Your task to perform on an android device: remove spam from my inbox in the gmail app Image 0: 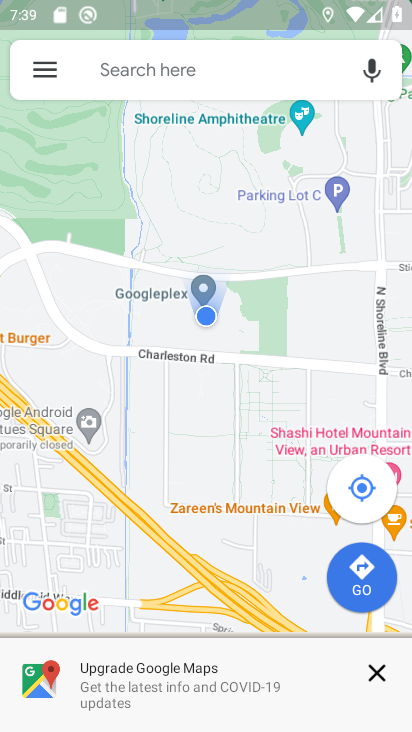
Step 0: press home button
Your task to perform on an android device: remove spam from my inbox in the gmail app Image 1: 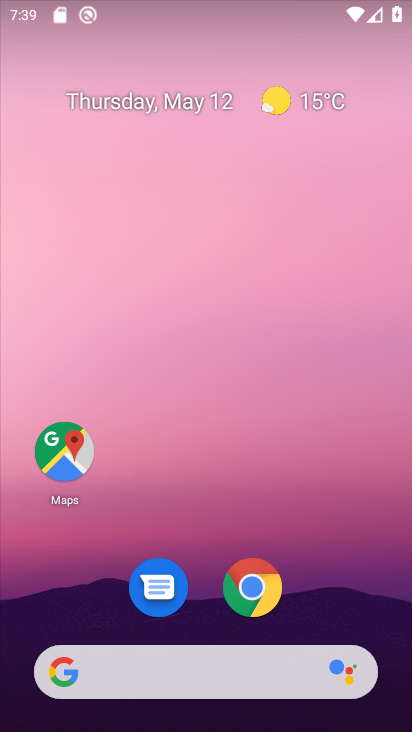
Step 1: drag from (389, 630) to (318, 70)
Your task to perform on an android device: remove spam from my inbox in the gmail app Image 2: 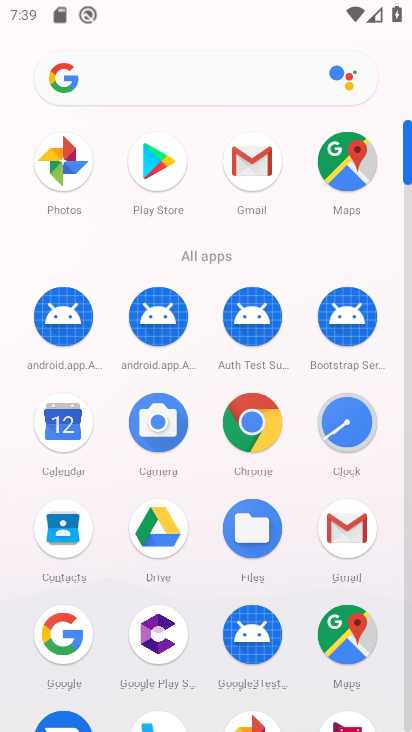
Step 2: click (346, 525)
Your task to perform on an android device: remove spam from my inbox in the gmail app Image 3: 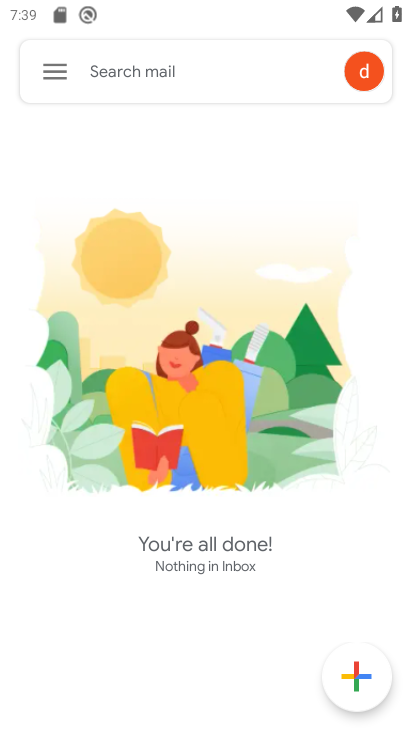
Step 3: click (47, 76)
Your task to perform on an android device: remove spam from my inbox in the gmail app Image 4: 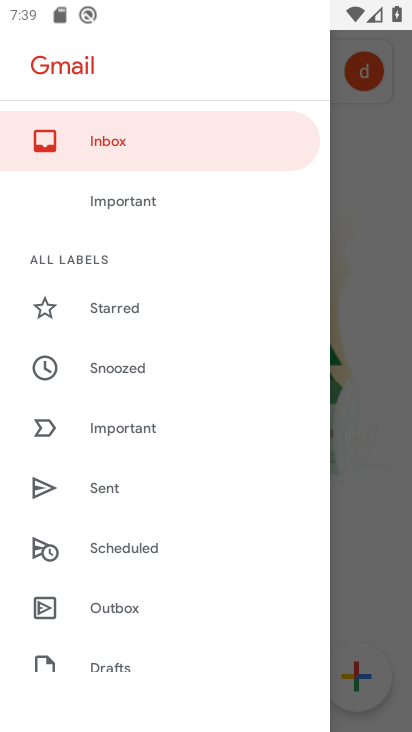
Step 4: drag from (153, 598) to (175, 355)
Your task to perform on an android device: remove spam from my inbox in the gmail app Image 5: 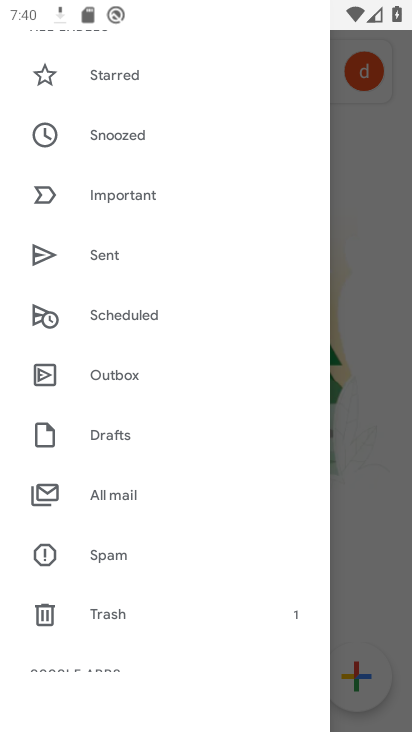
Step 5: click (152, 555)
Your task to perform on an android device: remove spam from my inbox in the gmail app Image 6: 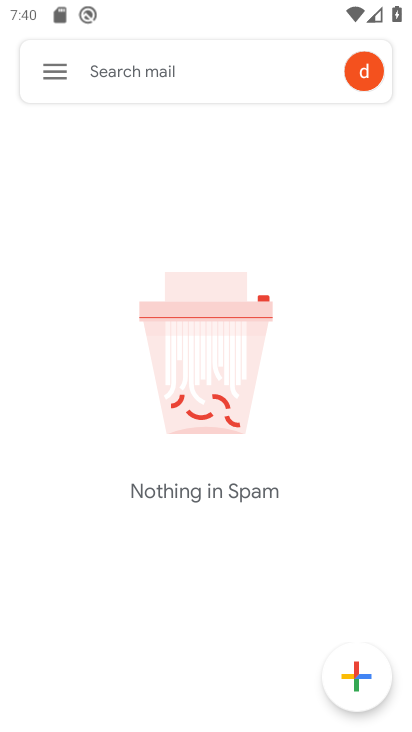
Step 6: task complete